Your task to perform on an android device: Open CNN.com Image 0: 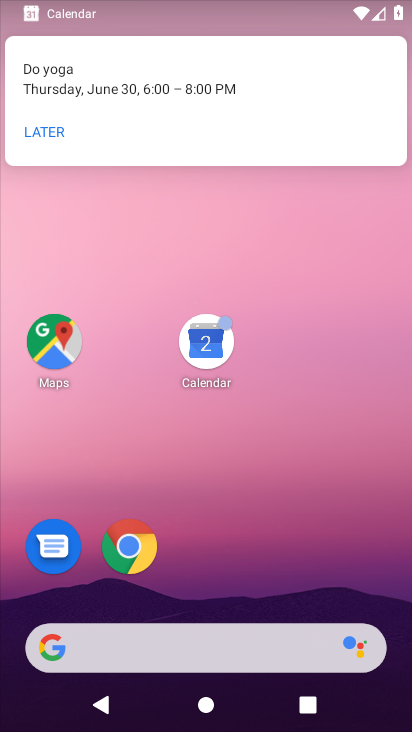
Step 0: press home button
Your task to perform on an android device: Open CNN.com Image 1: 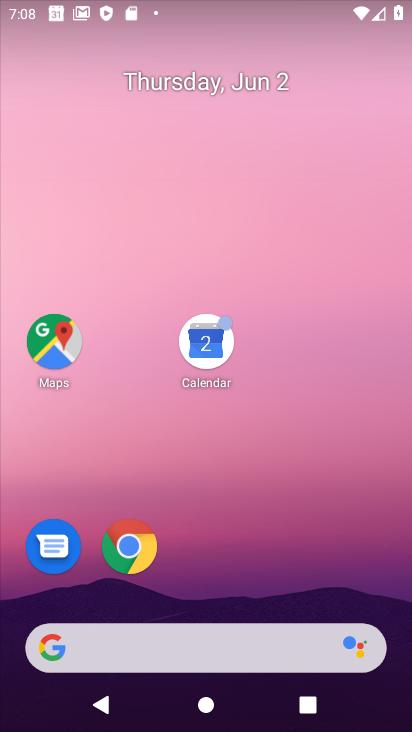
Step 1: drag from (253, 677) to (254, 181)
Your task to perform on an android device: Open CNN.com Image 2: 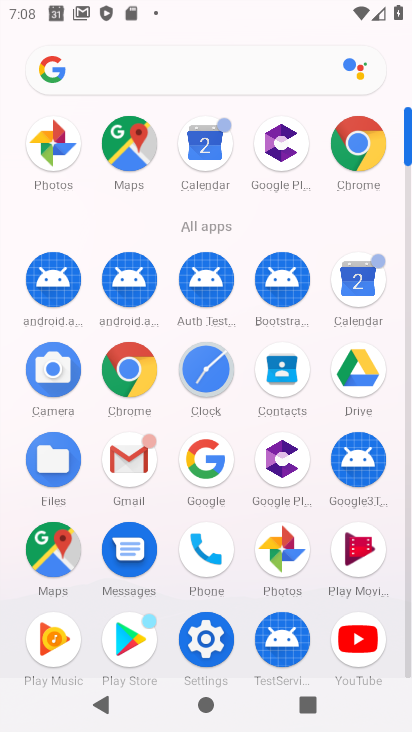
Step 2: click (363, 155)
Your task to perform on an android device: Open CNN.com Image 3: 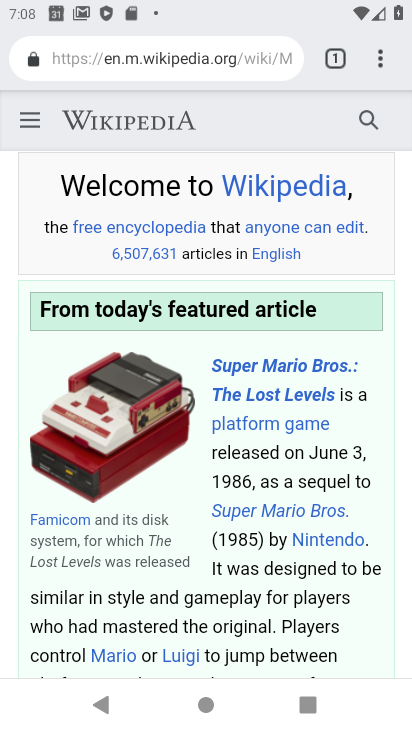
Step 3: click (196, 61)
Your task to perform on an android device: Open CNN.com Image 4: 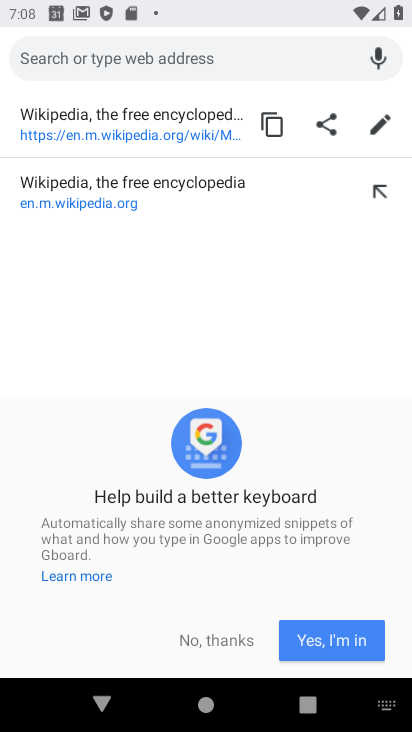
Step 4: click (207, 642)
Your task to perform on an android device: Open CNN.com Image 5: 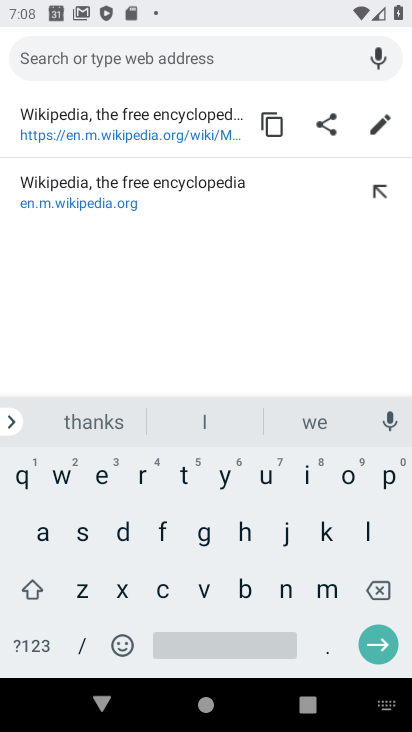
Step 5: click (162, 591)
Your task to perform on an android device: Open CNN.com Image 6: 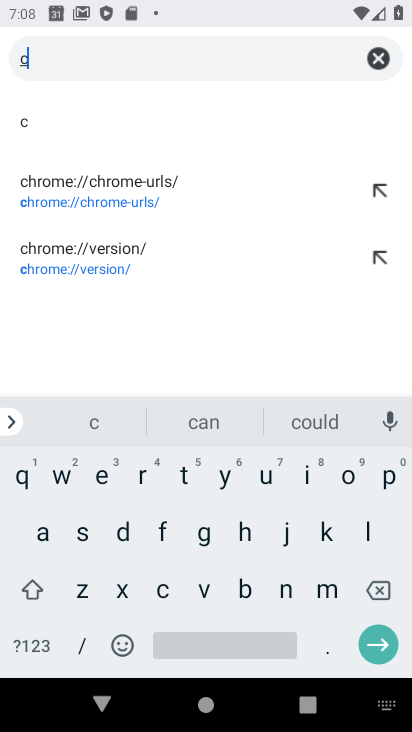
Step 6: click (275, 594)
Your task to perform on an android device: Open CNN.com Image 7: 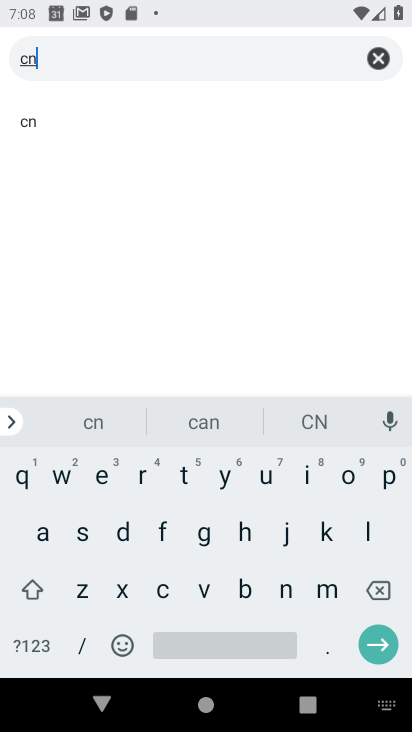
Step 7: click (275, 594)
Your task to perform on an android device: Open CNN.com Image 8: 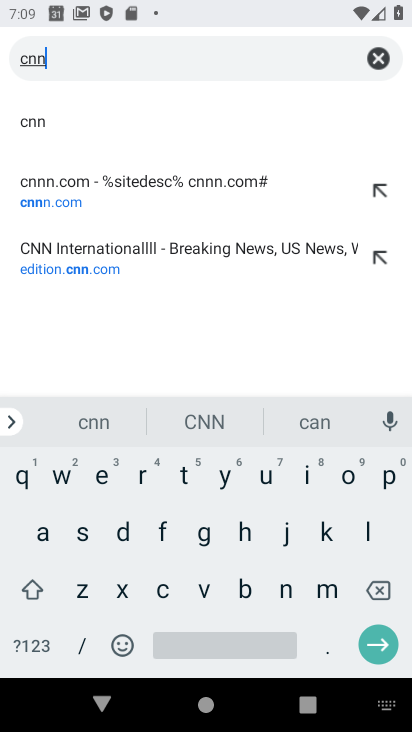
Step 8: click (325, 652)
Your task to perform on an android device: Open CNN.com Image 9: 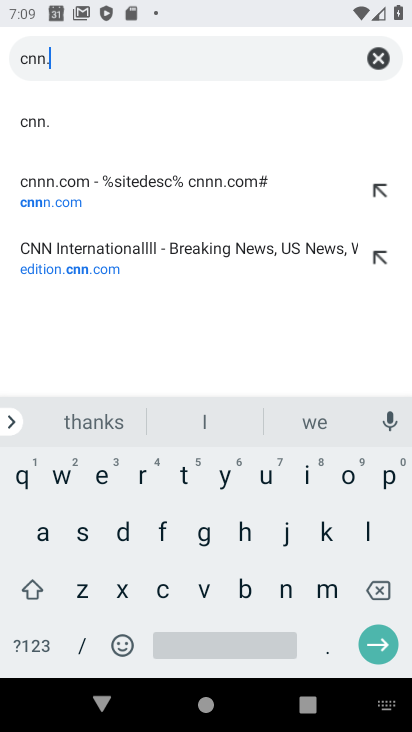
Step 9: click (160, 586)
Your task to perform on an android device: Open CNN.com Image 10: 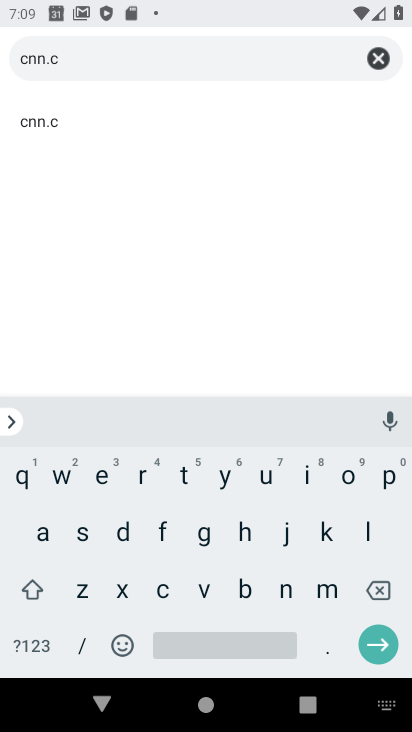
Step 10: click (338, 476)
Your task to perform on an android device: Open CNN.com Image 11: 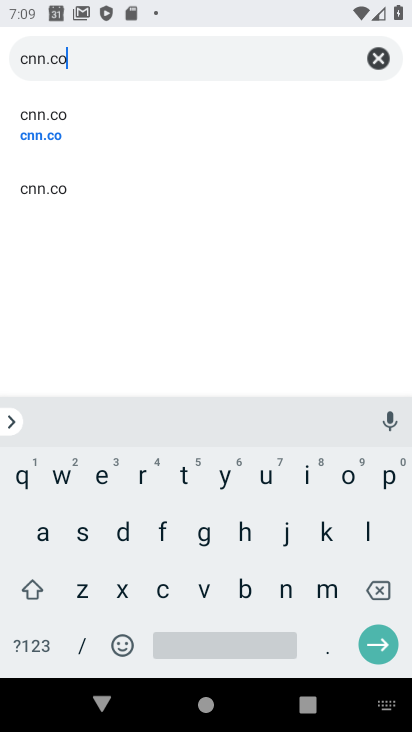
Step 11: click (315, 596)
Your task to perform on an android device: Open CNN.com Image 12: 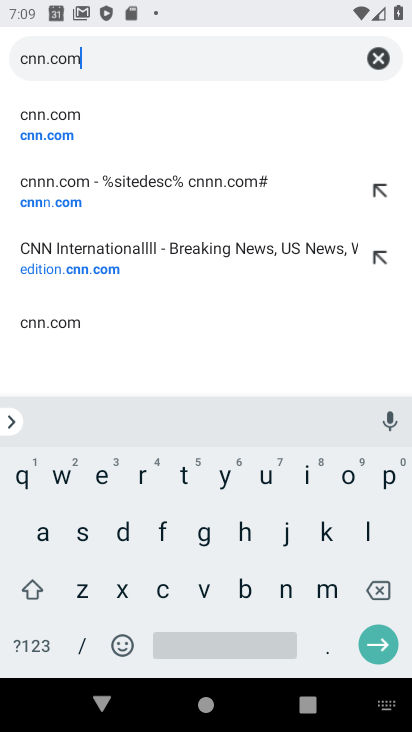
Step 12: click (380, 639)
Your task to perform on an android device: Open CNN.com Image 13: 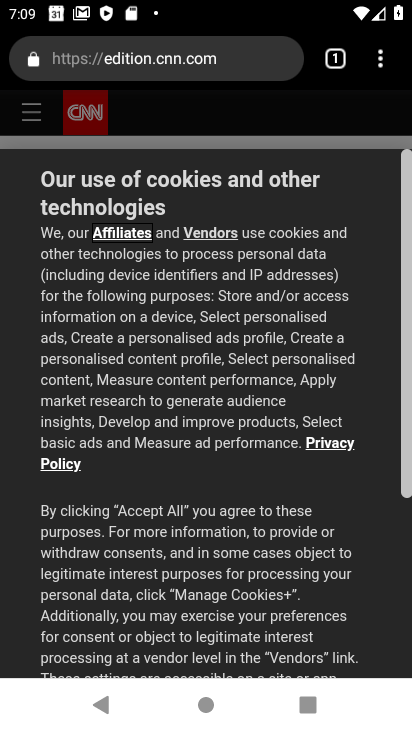
Step 13: drag from (223, 576) to (73, 9)
Your task to perform on an android device: Open CNN.com Image 14: 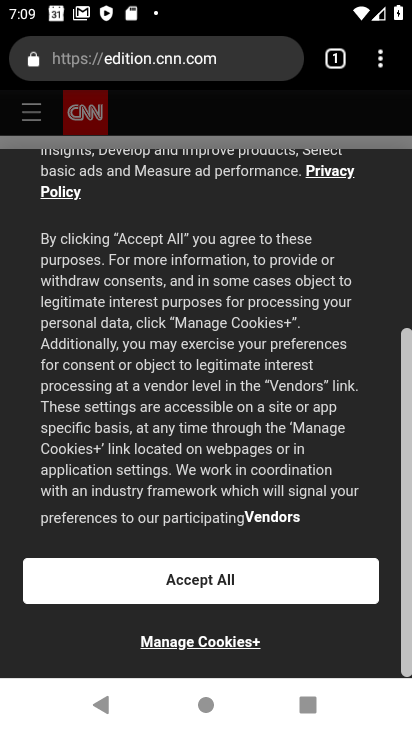
Step 14: click (260, 580)
Your task to perform on an android device: Open CNN.com Image 15: 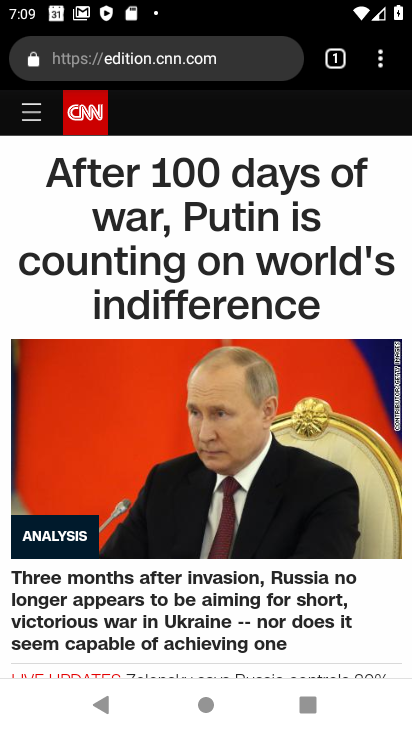
Step 15: task complete